Your task to perform on an android device: Open Youtube and go to the subscriptions tab Image 0: 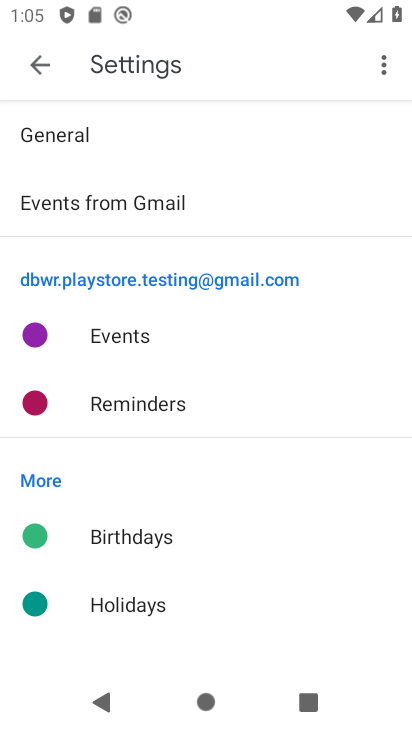
Step 0: press home button
Your task to perform on an android device: Open Youtube and go to the subscriptions tab Image 1: 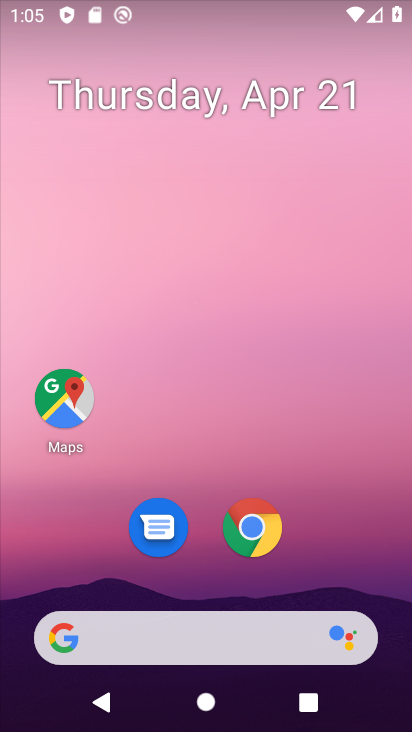
Step 1: drag from (355, 560) to (348, 39)
Your task to perform on an android device: Open Youtube and go to the subscriptions tab Image 2: 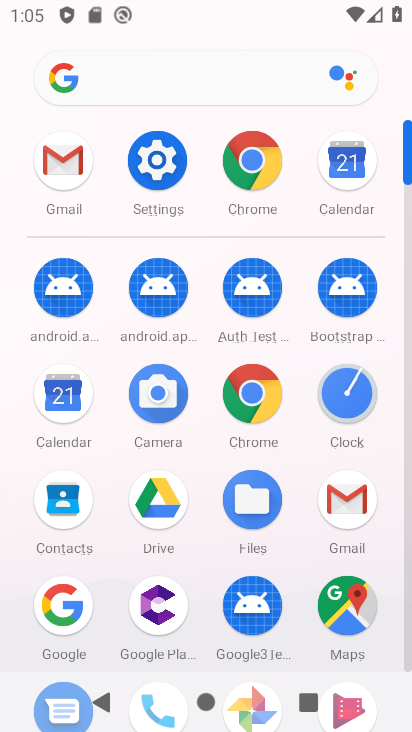
Step 2: drag from (196, 552) to (215, 169)
Your task to perform on an android device: Open Youtube and go to the subscriptions tab Image 3: 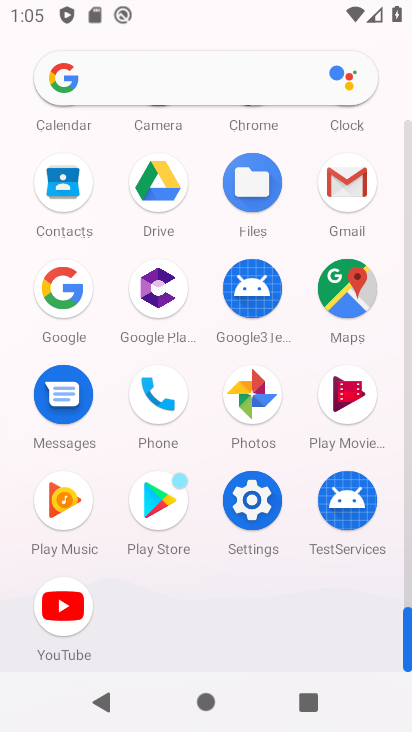
Step 3: click (51, 602)
Your task to perform on an android device: Open Youtube and go to the subscriptions tab Image 4: 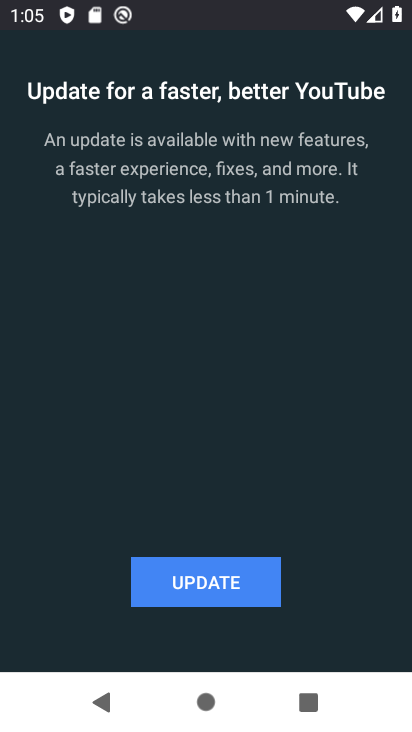
Step 4: click (189, 584)
Your task to perform on an android device: Open Youtube and go to the subscriptions tab Image 5: 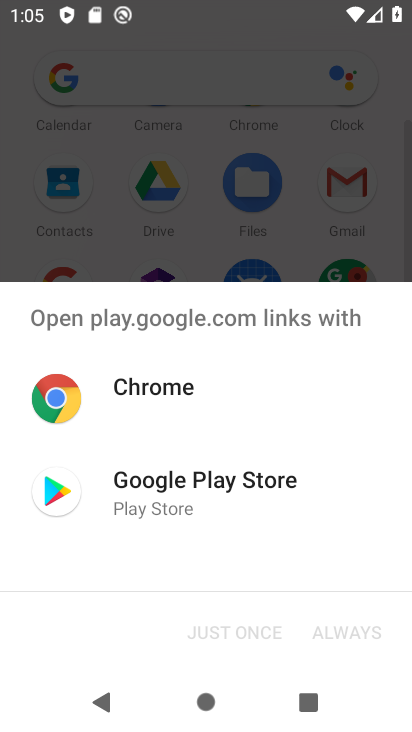
Step 5: click (166, 496)
Your task to perform on an android device: Open Youtube and go to the subscriptions tab Image 6: 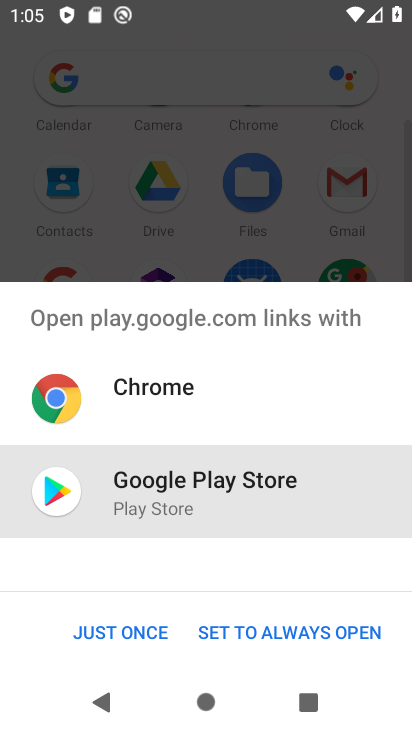
Step 6: click (160, 637)
Your task to perform on an android device: Open Youtube and go to the subscriptions tab Image 7: 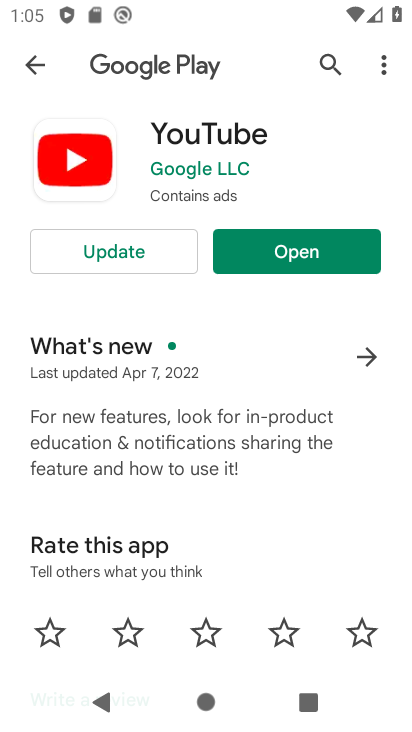
Step 7: click (110, 247)
Your task to perform on an android device: Open Youtube and go to the subscriptions tab Image 8: 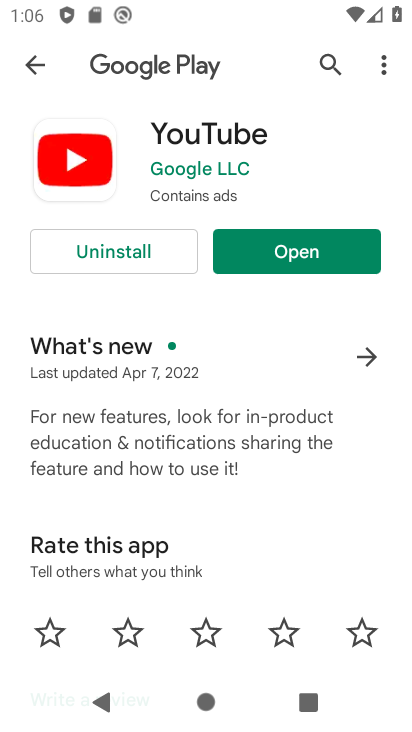
Step 8: click (302, 256)
Your task to perform on an android device: Open Youtube and go to the subscriptions tab Image 9: 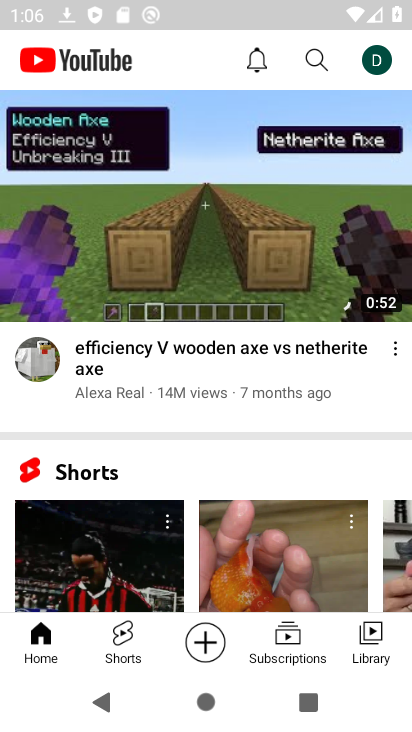
Step 9: click (291, 648)
Your task to perform on an android device: Open Youtube and go to the subscriptions tab Image 10: 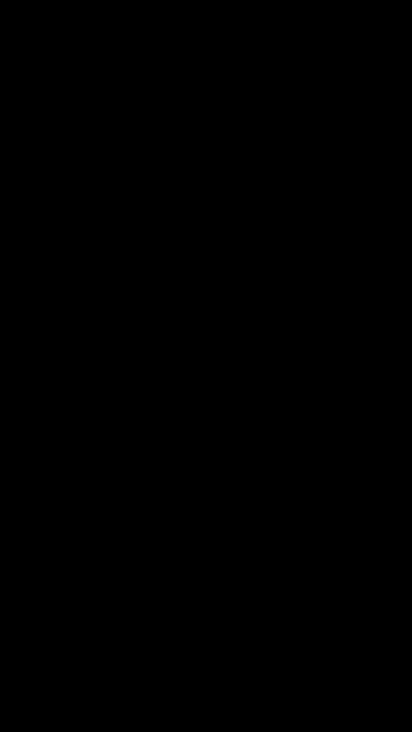
Step 10: task complete